Your task to perform on an android device: Find coffee shops on Maps Image 0: 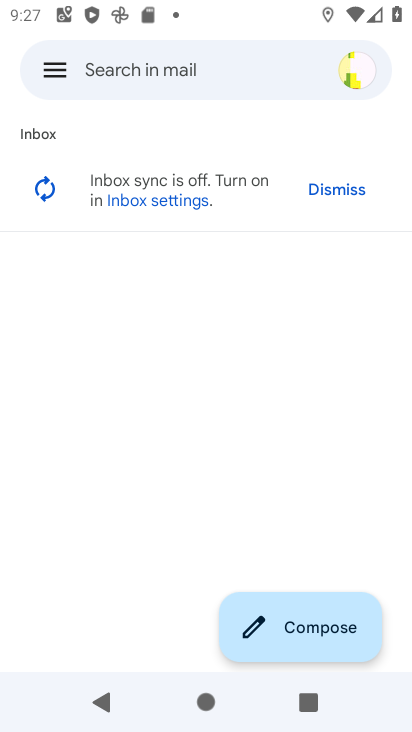
Step 0: press home button
Your task to perform on an android device: Find coffee shops on Maps Image 1: 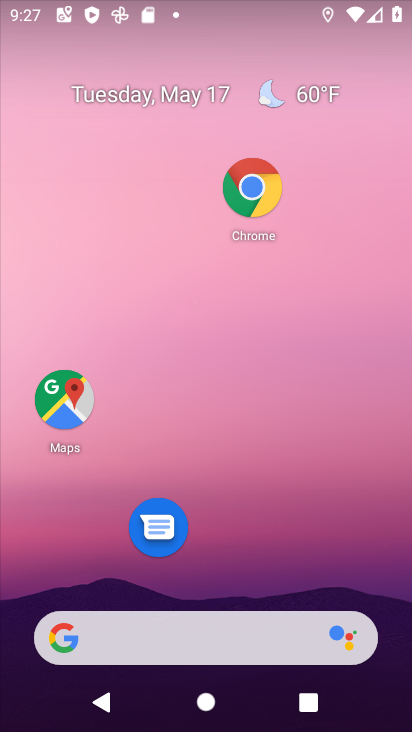
Step 1: click (80, 398)
Your task to perform on an android device: Find coffee shops on Maps Image 2: 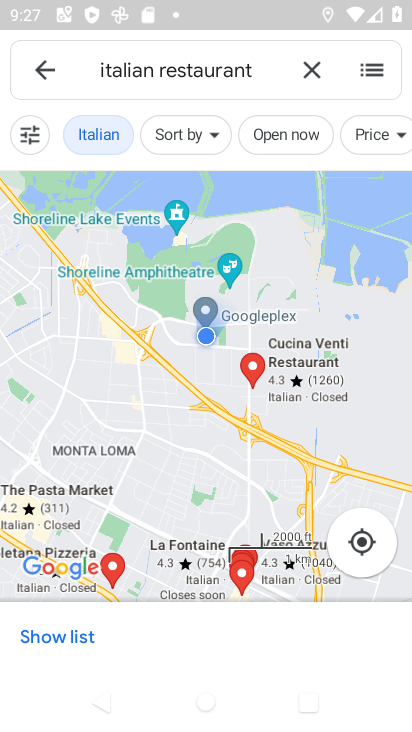
Step 2: click (302, 72)
Your task to perform on an android device: Find coffee shops on Maps Image 3: 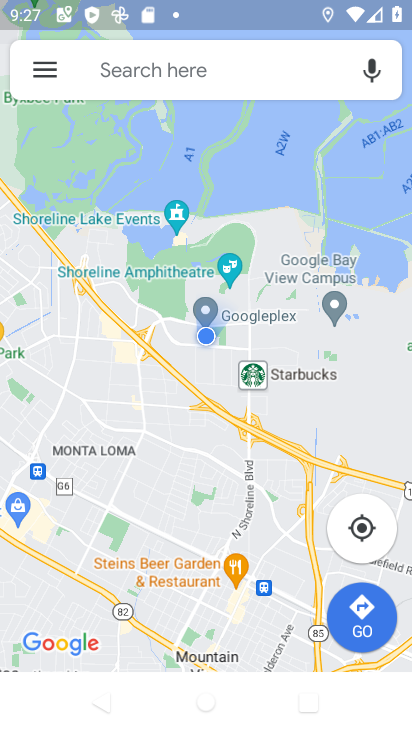
Step 3: click (302, 72)
Your task to perform on an android device: Find coffee shops on Maps Image 4: 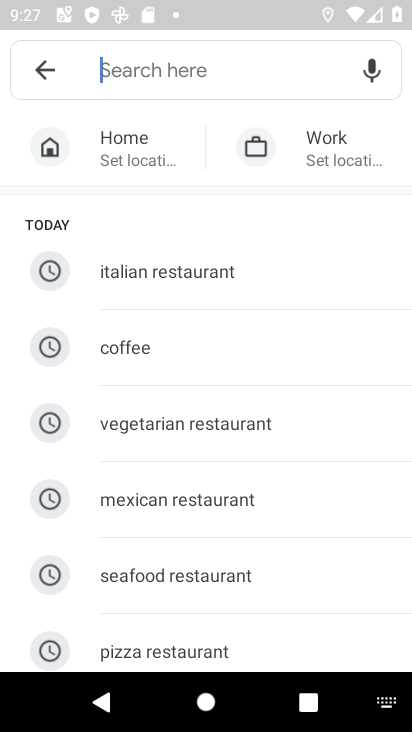
Step 4: click (218, 353)
Your task to perform on an android device: Find coffee shops on Maps Image 5: 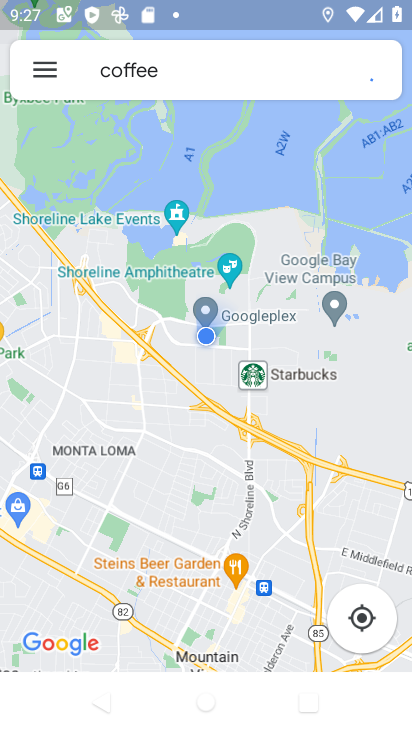
Step 5: task complete